Your task to perform on an android device: clear all cookies in the chrome app Image 0: 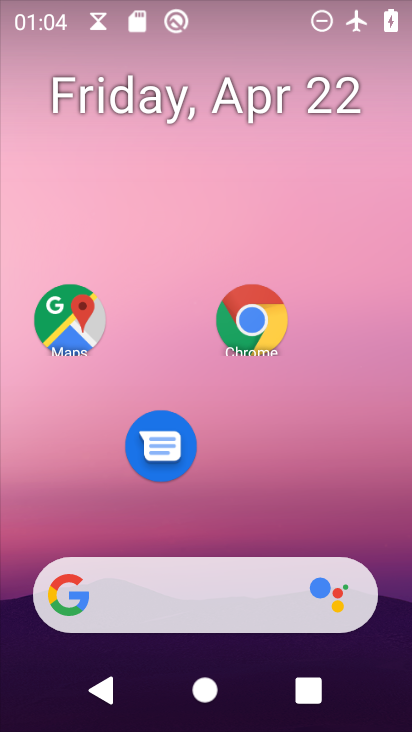
Step 0: drag from (202, 497) to (193, 26)
Your task to perform on an android device: clear all cookies in the chrome app Image 1: 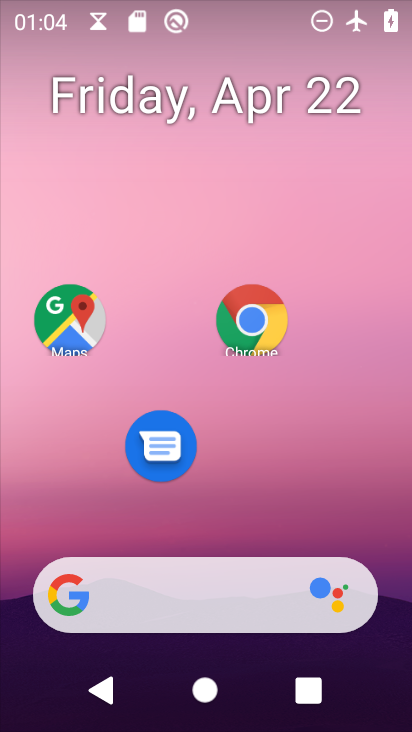
Step 1: click (288, 168)
Your task to perform on an android device: clear all cookies in the chrome app Image 2: 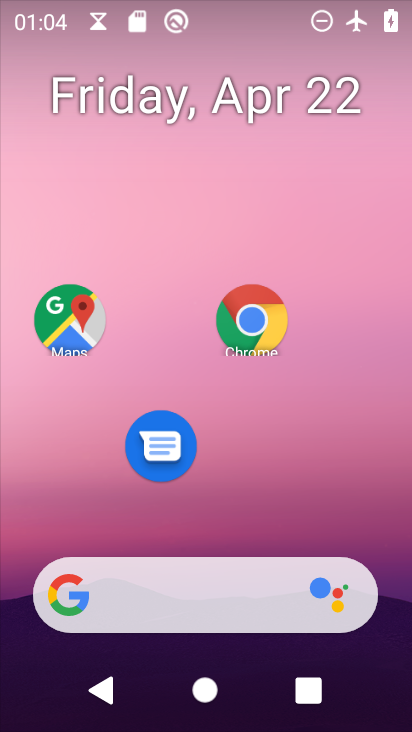
Step 2: drag from (229, 419) to (102, 228)
Your task to perform on an android device: clear all cookies in the chrome app Image 3: 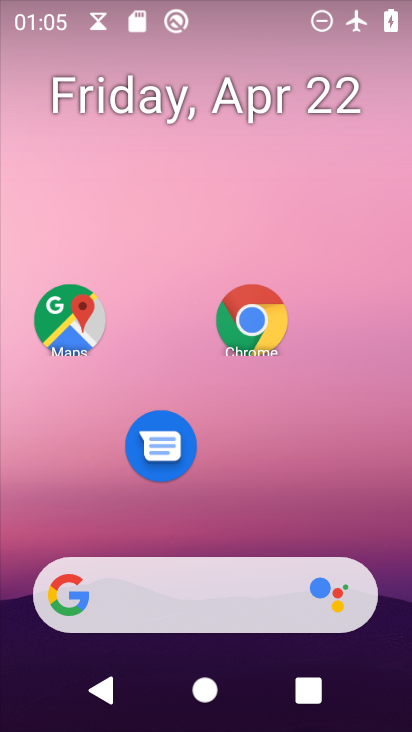
Step 3: drag from (193, 534) to (195, 240)
Your task to perform on an android device: clear all cookies in the chrome app Image 4: 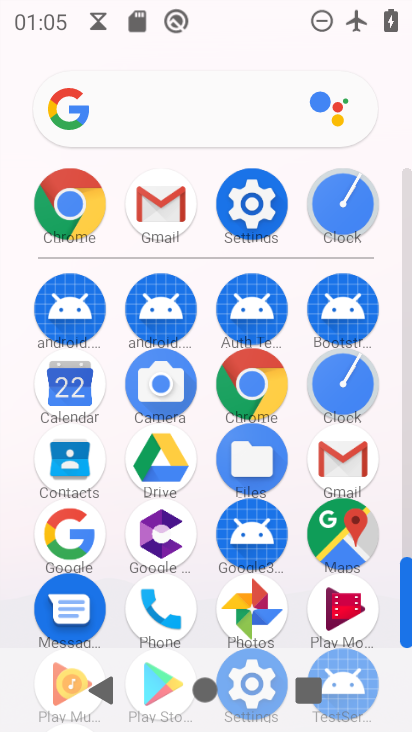
Step 4: click (247, 384)
Your task to perform on an android device: clear all cookies in the chrome app Image 5: 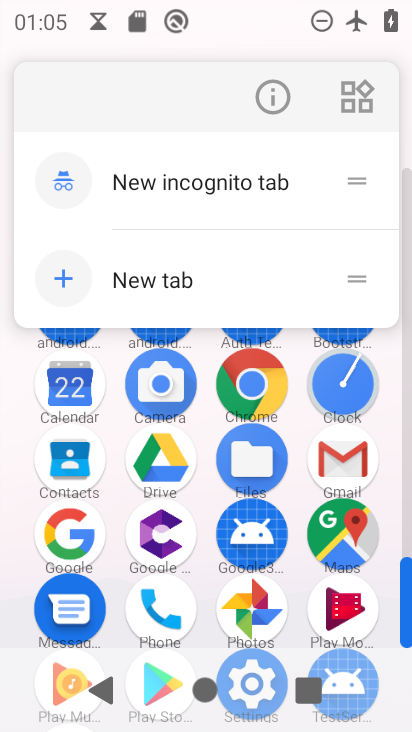
Step 5: click (263, 107)
Your task to perform on an android device: clear all cookies in the chrome app Image 6: 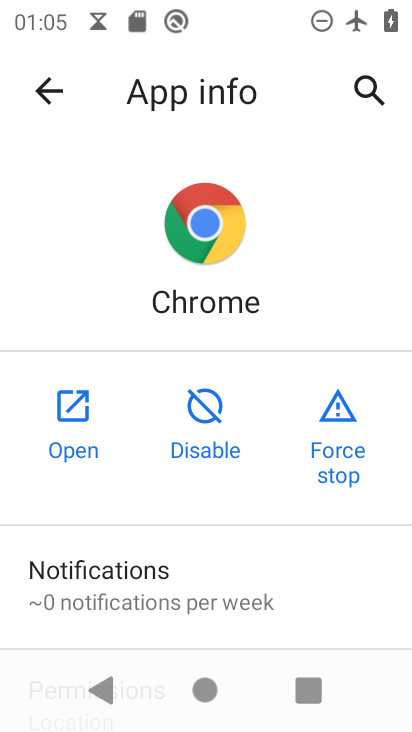
Step 6: click (63, 411)
Your task to perform on an android device: clear all cookies in the chrome app Image 7: 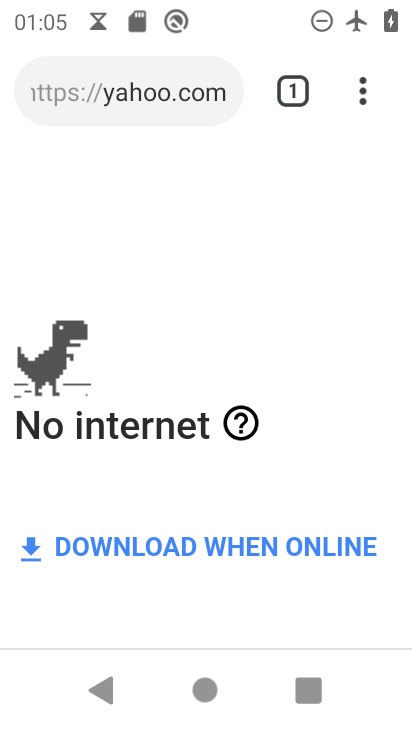
Step 7: drag from (356, 98) to (228, 438)
Your task to perform on an android device: clear all cookies in the chrome app Image 8: 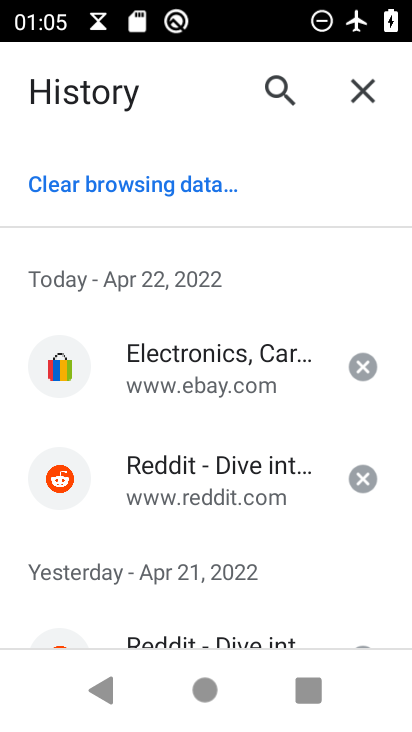
Step 8: drag from (151, 582) to (240, 246)
Your task to perform on an android device: clear all cookies in the chrome app Image 9: 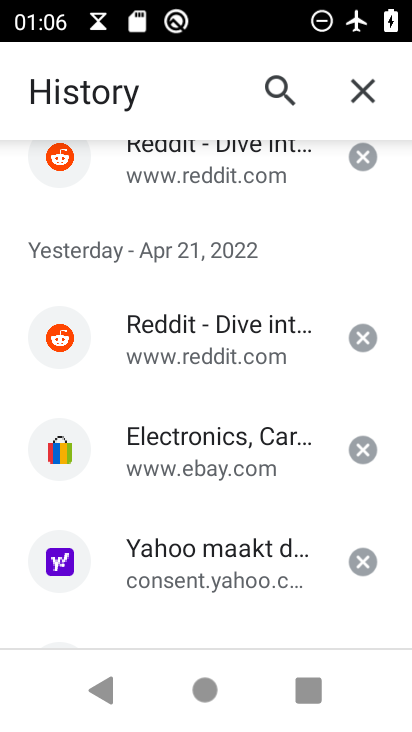
Step 9: drag from (190, 569) to (226, 371)
Your task to perform on an android device: clear all cookies in the chrome app Image 10: 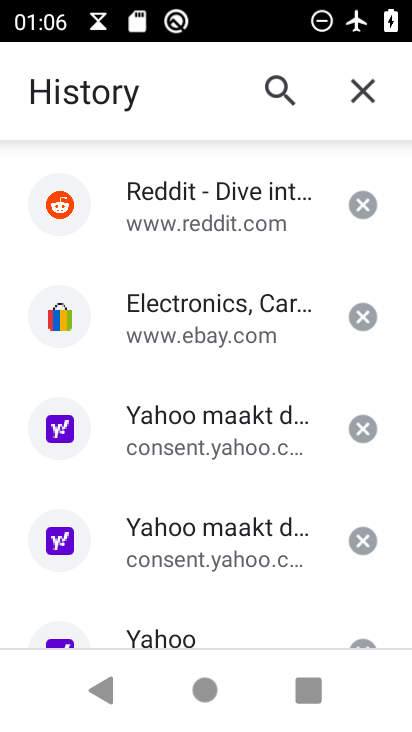
Step 10: drag from (210, 239) to (273, 604)
Your task to perform on an android device: clear all cookies in the chrome app Image 11: 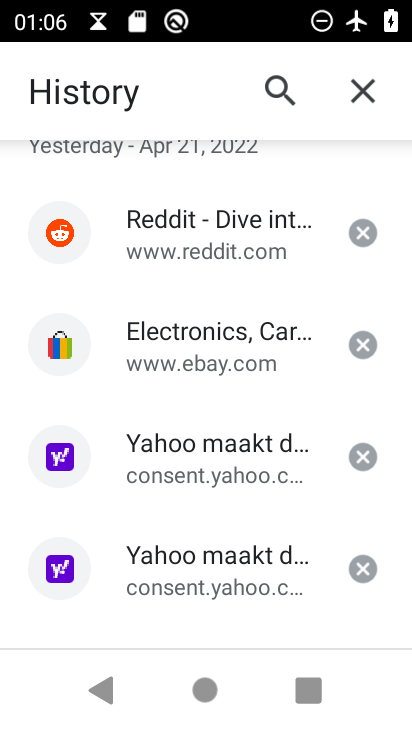
Step 11: drag from (201, 451) to (337, 293)
Your task to perform on an android device: clear all cookies in the chrome app Image 12: 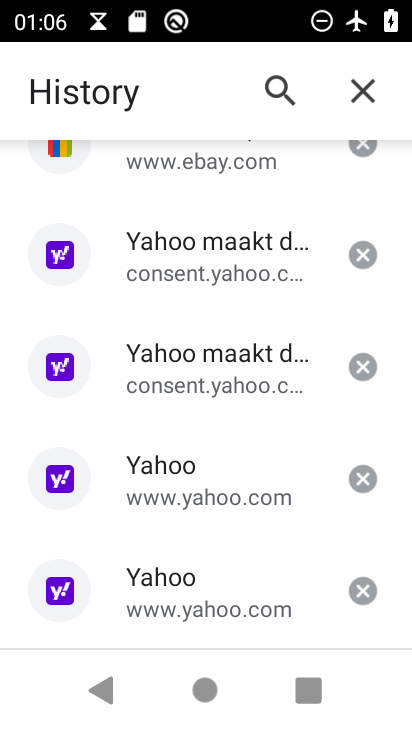
Step 12: drag from (216, 564) to (275, 207)
Your task to perform on an android device: clear all cookies in the chrome app Image 13: 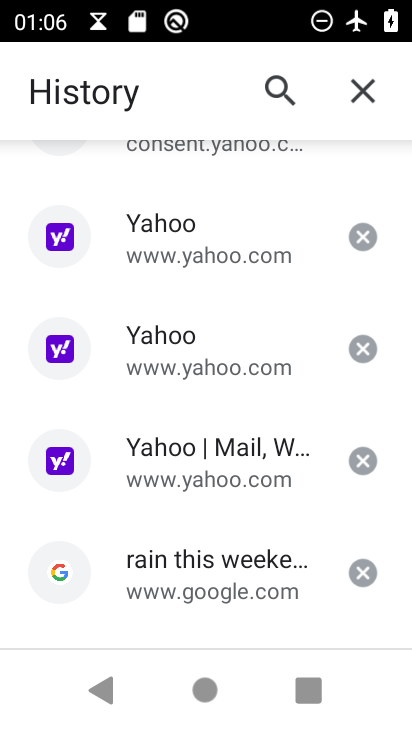
Step 13: drag from (206, 230) to (319, 663)
Your task to perform on an android device: clear all cookies in the chrome app Image 14: 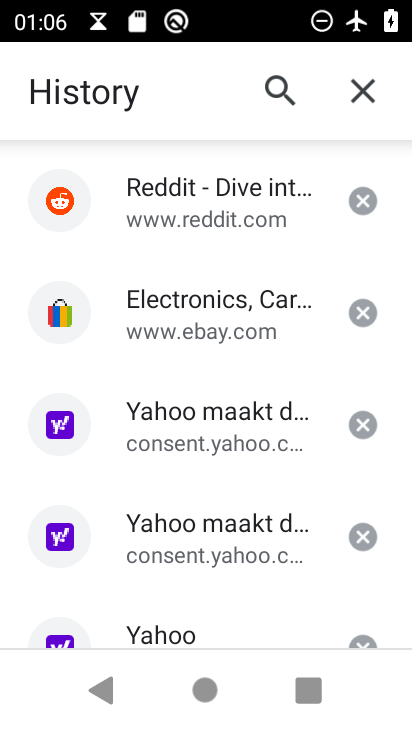
Step 14: drag from (209, 221) to (299, 530)
Your task to perform on an android device: clear all cookies in the chrome app Image 15: 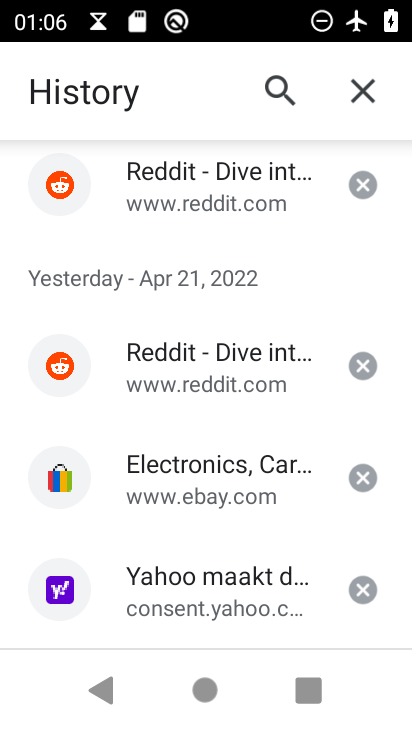
Step 15: drag from (169, 219) to (281, 588)
Your task to perform on an android device: clear all cookies in the chrome app Image 16: 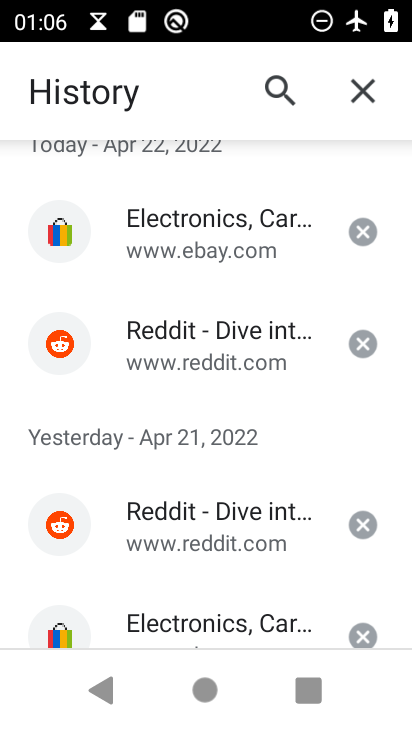
Step 16: drag from (168, 247) to (329, 624)
Your task to perform on an android device: clear all cookies in the chrome app Image 17: 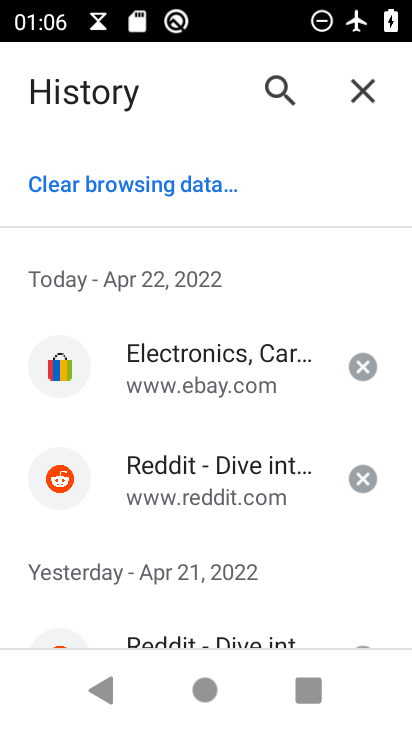
Step 17: click (114, 193)
Your task to perform on an android device: clear all cookies in the chrome app Image 18: 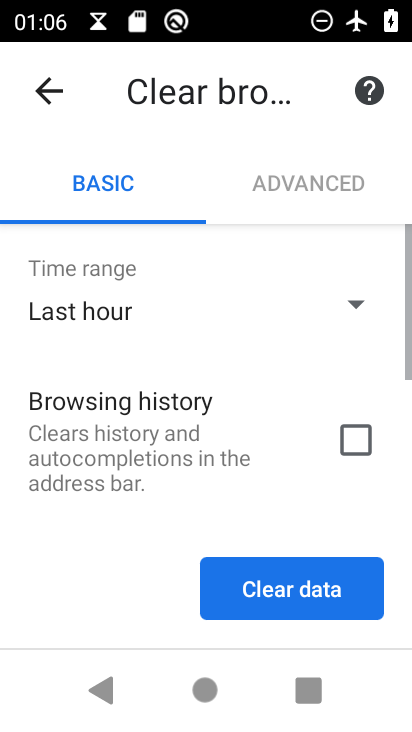
Step 18: drag from (336, 498) to (369, 189)
Your task to perform on an android device: clear all cookies in the chrome app Image 19: 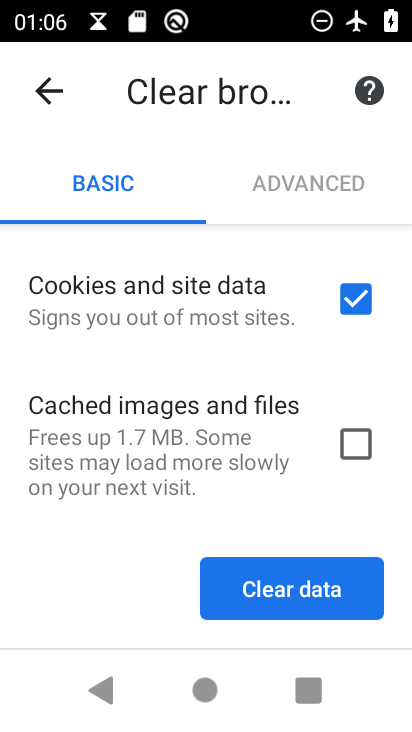
Step 19: drag from (265, 380) to (339, 448)
Your task to perform on an android device: clear all cookies in the chrome app Image 20: 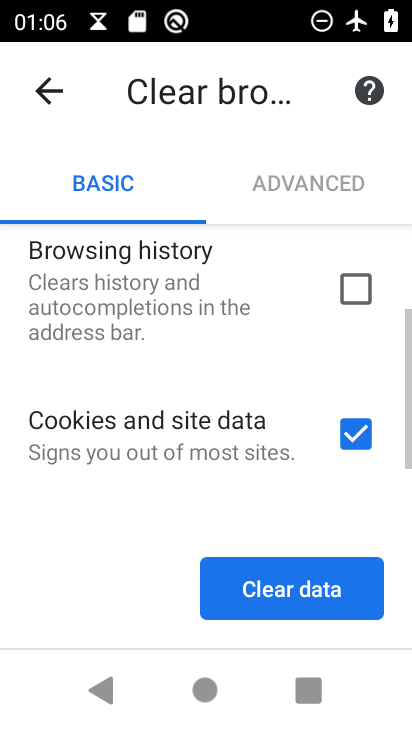
Step 20: click (271, 610)
Your task to perform on an android device: clear all cookies in the chrome app Image 21: 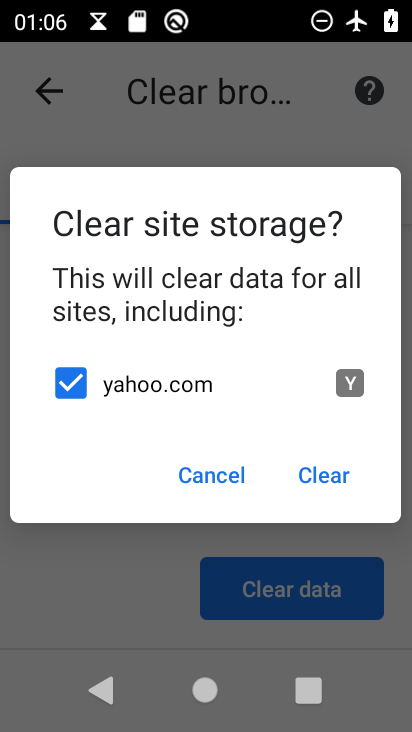
Step 21: click (319, 477)
Your task to perform on an android device: clear all cookies in the chrome app Image 22: 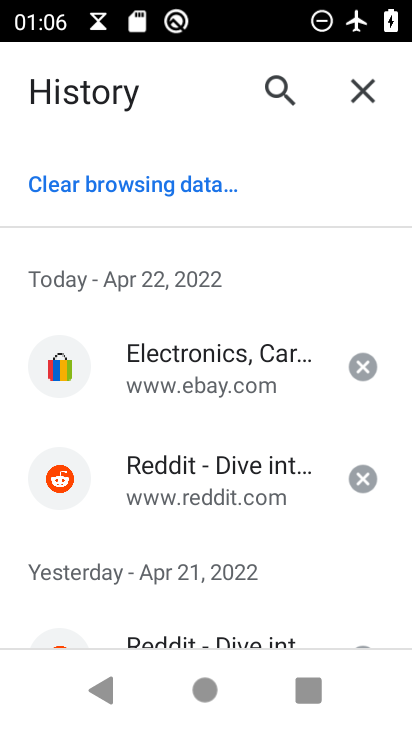
Step 22: task complete